Your task to perform on an android device: turn off notifications in google photos Image 0: 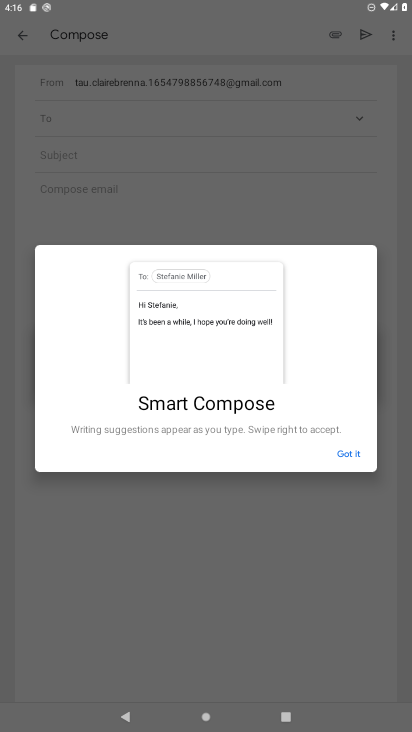
Step 0: press home button
Your task to perform on an android device: turn off notifications in google photos Image 1: 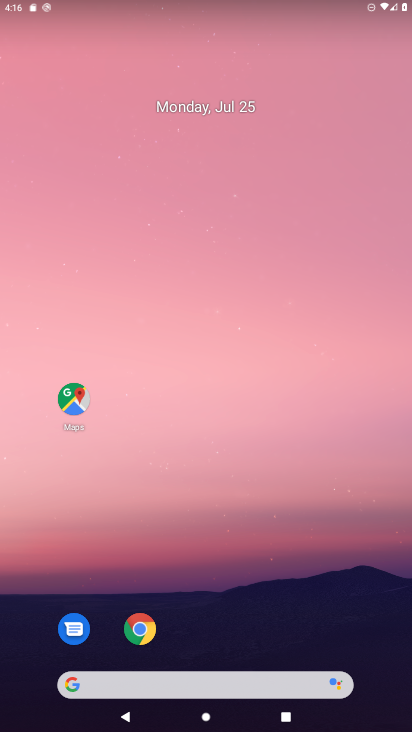
Step 1: drag from (184, 675) to (240, 10)
Your task to perform on an android device: turn off notifications in google photos Image 2: 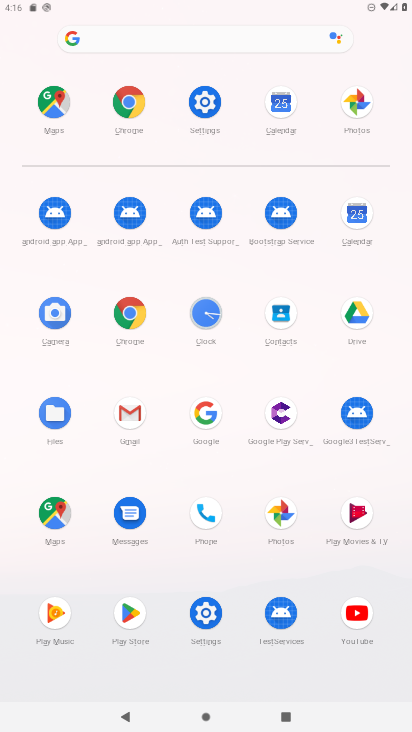
Step 2: click (274, 509)
Your task to perform on an android device: turn off notifications in google photos Image 3: 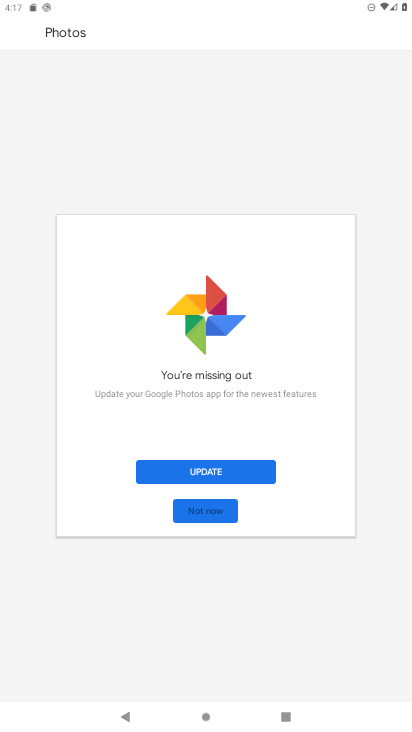
Step 3: click (247, 476)
Your task to perform on an android device: turn off notifications in google photos Image 4: 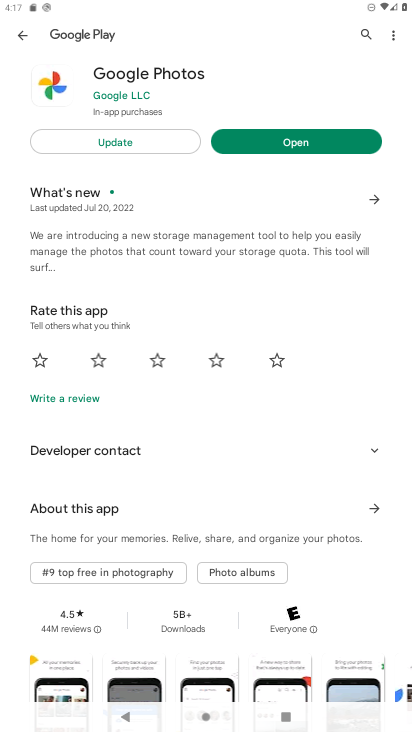
Step 4: click (163, 137)
Your task to perform on an android device: turn off notifications in google photos Image 5: 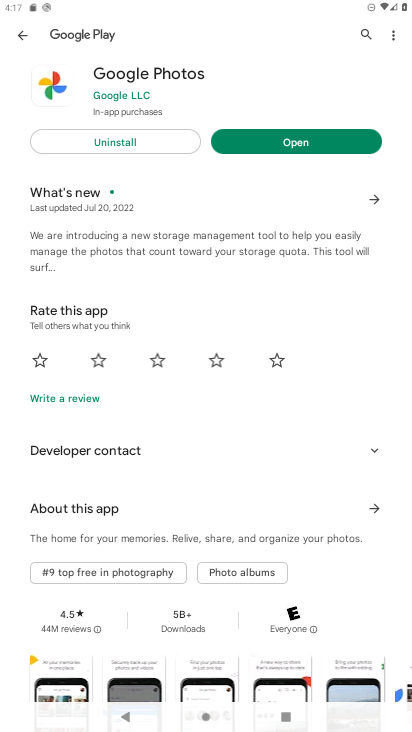
Step 5: click (306, 145)
Your task to perform on an android device: turn off notifications in google photos Image 6: 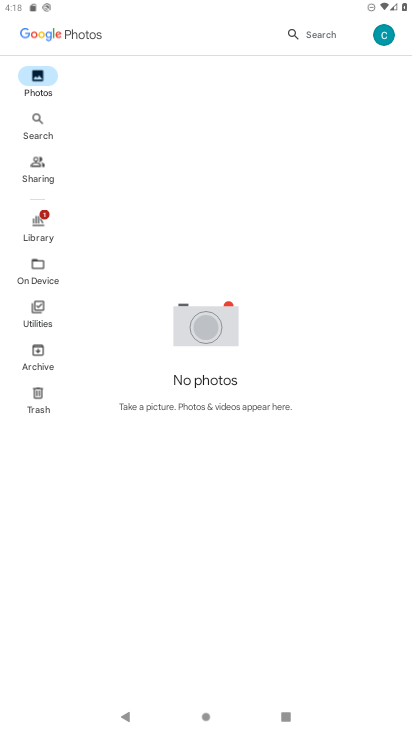
Step 6: click (387, 34)
Your task to perform on an android device: turn off notifications in google photos Image 7: 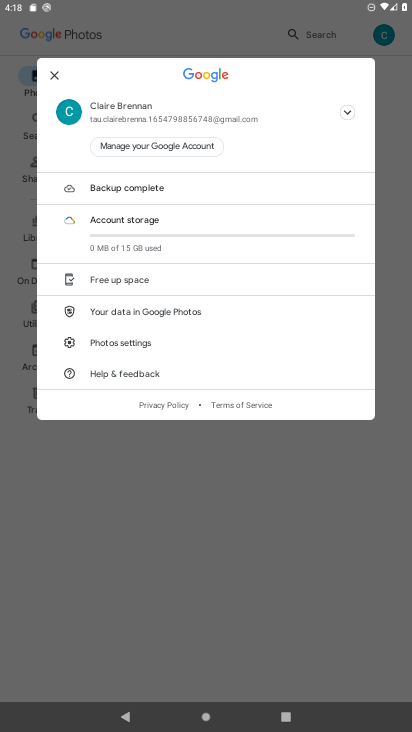
Step 7: click (156, 346)
Your task to perform on an android device: turn off notifications in google photos Image 8: 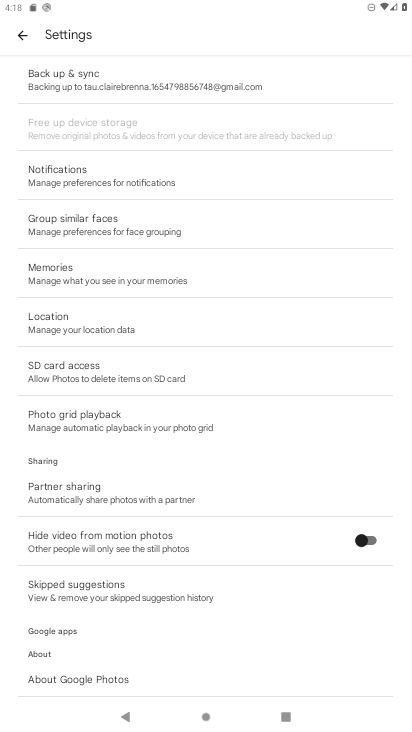
Step 8: click (176, 77)
Your task to perform on an android device: turn off notifications in google photos Image 9: 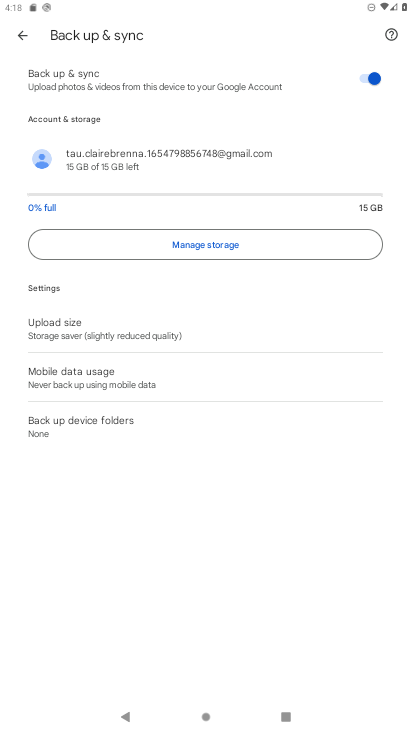
Step 9: press back button
Your task to perform on an android device: turn off notifications in google photos Image 10: 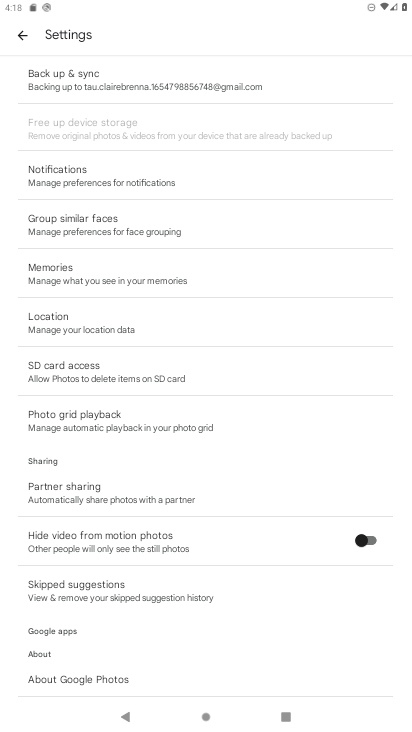
Step 10: click (150, 170)
Your task to perform on an android device: turn off notifications in google photos Image 11: 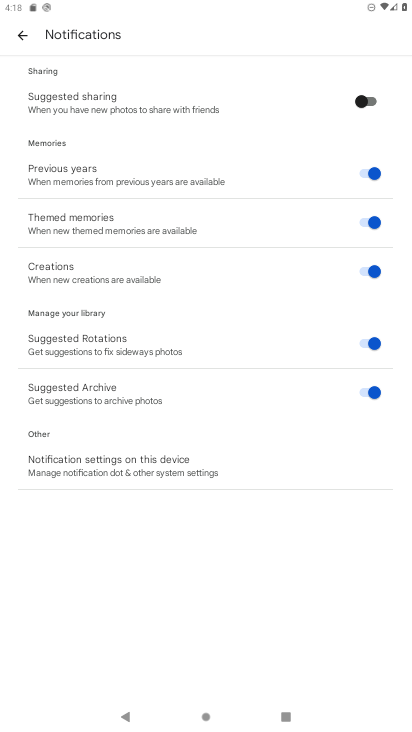
Step 11: click (208, 476)
Your task to perform on an android device: turn off notifications in google photos Image 12: 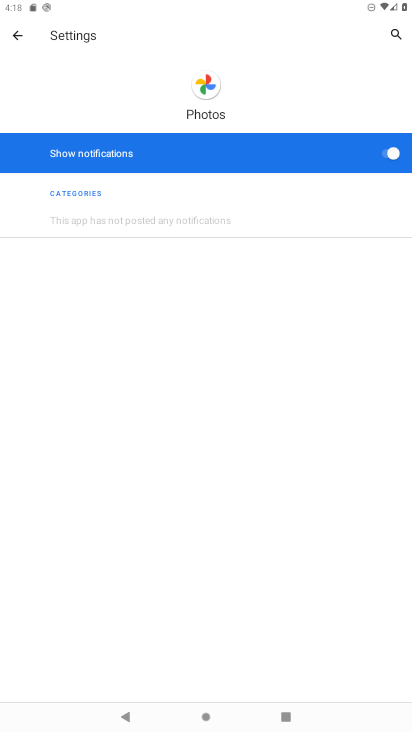
Step 12: click (389, 152)
Your task to perform on an android device: turn off notifications in google photos Image 13: 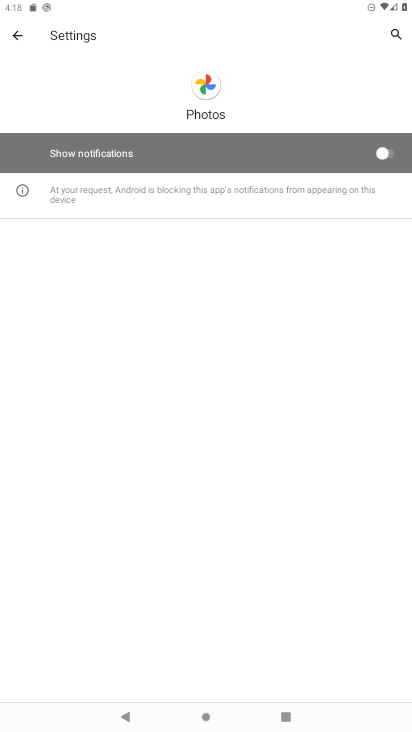
Step 13: task complete